Your task to perform on an android device: turn on showing notifications on the lock screen Image 0: 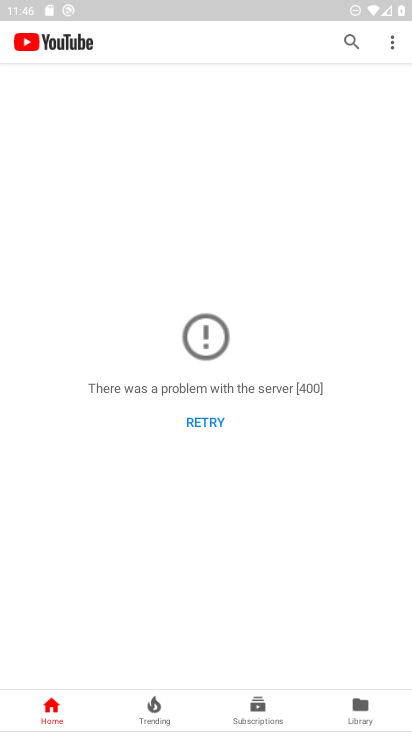
Step 0: press home button
Your task to perform on an android device: turn on showing notifications on the lock screen Image 1: 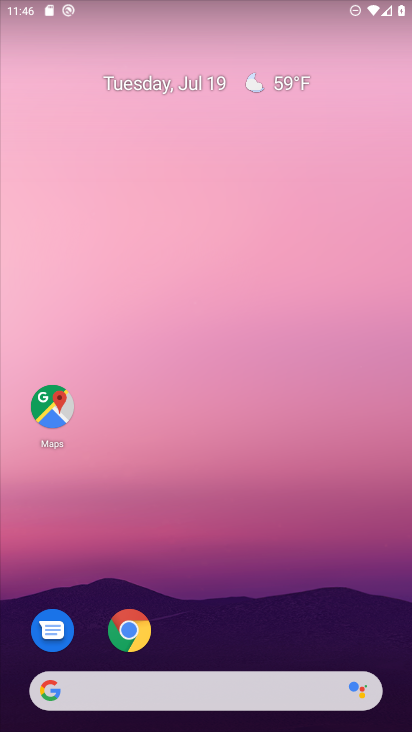
Step 1: drag from (293, 622) to (326, 0)
Your task to perform on an android device: turn on showing notifications on the lock screen Image 2: 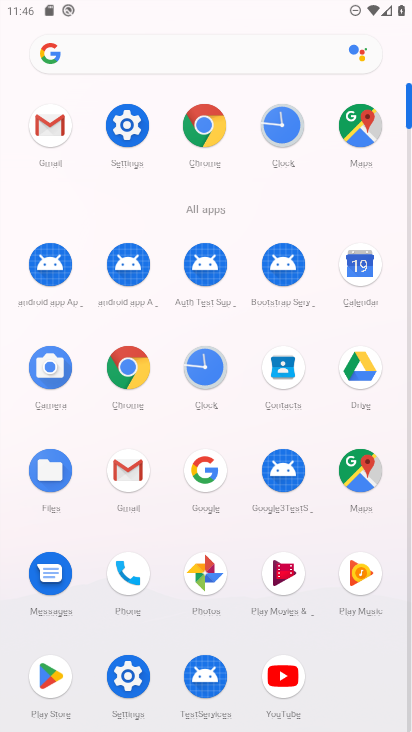
Step 2: click (121, 128)
Your task to perform on an android device: turn on showing notifications on the lock screen Image 3: 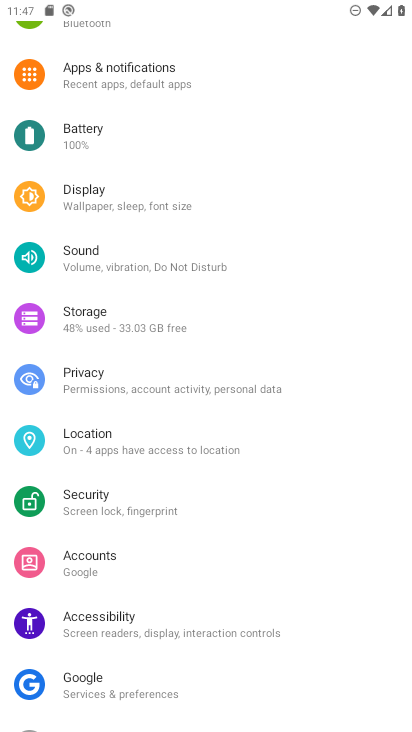
Step 3: click (145, 64)
Your task to perform on an android device: turn on showing notifications on the lock screen Image 4: 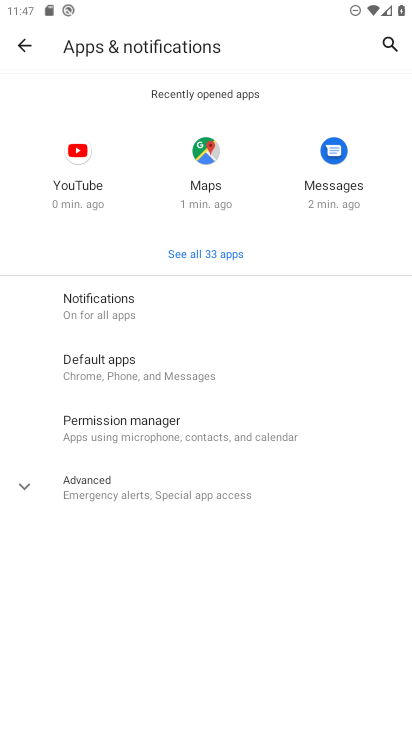
Step 4: click (143, 311)
Your task to perform on an android device: turn on showing notifications on the lock screen Image 5: 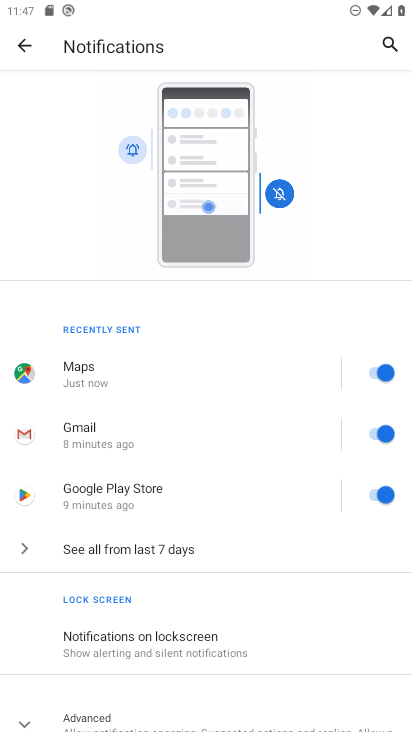
Step 5: click (217, 641)
Your task to perform on an android device: turn on showing notifications on the lock screen Image 6: 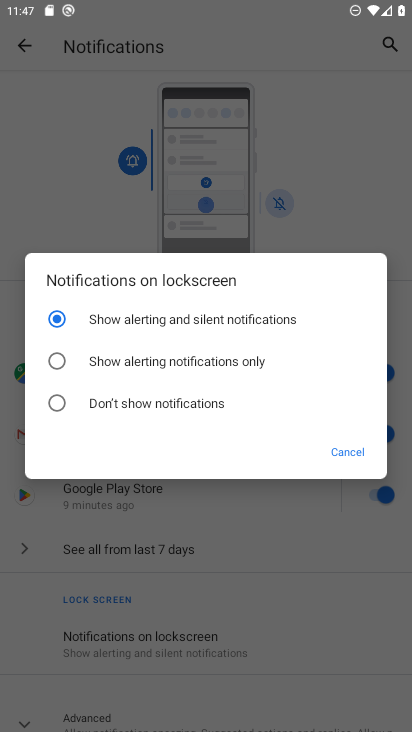
Step 6: task complete